Your task to perform on an android device: Set an alarm for 9am Image 0: 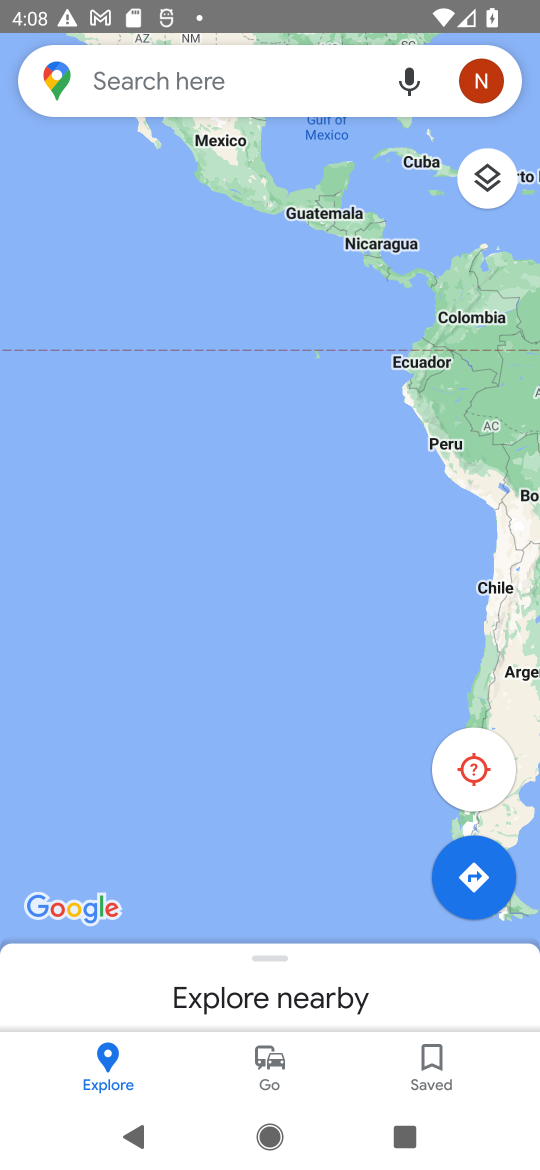
Step 0: press home button
Your task to perform on an android device: Set an alarm for 9am Image 1: 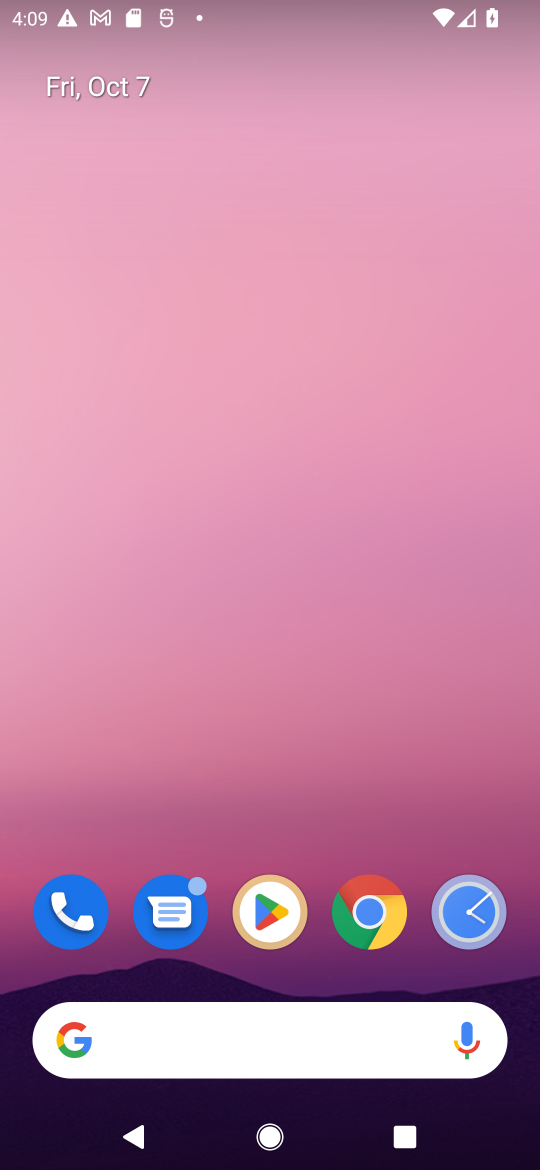
Step 1: drag from (221, 968) to (248, 382)
Your task to perform on an android device: Set an alarm for 9am Image 2: 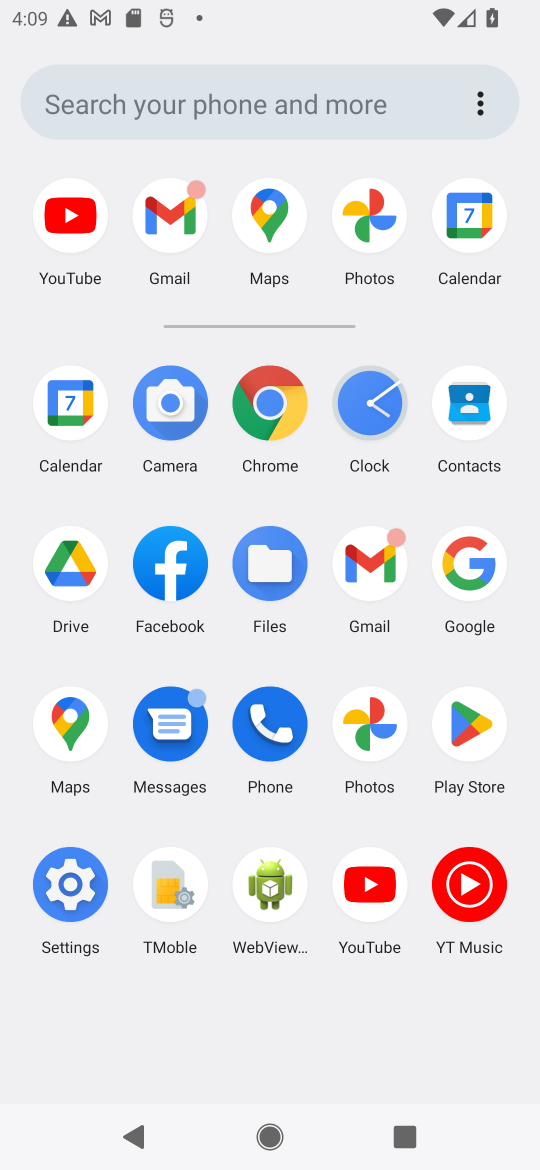
Step 2: click (374, 394)
Your task to perform on an android device: Set an alarm for 9am Image 3: 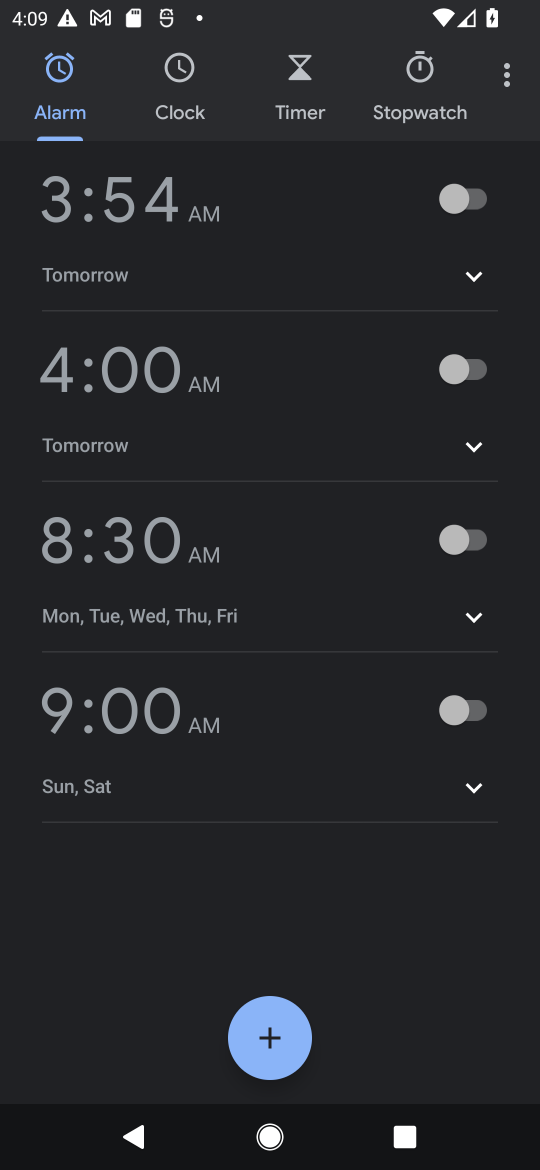
Step 3: click (474, 707)
Your task to perform on an android device: Set an alarm for 9am Image 4: 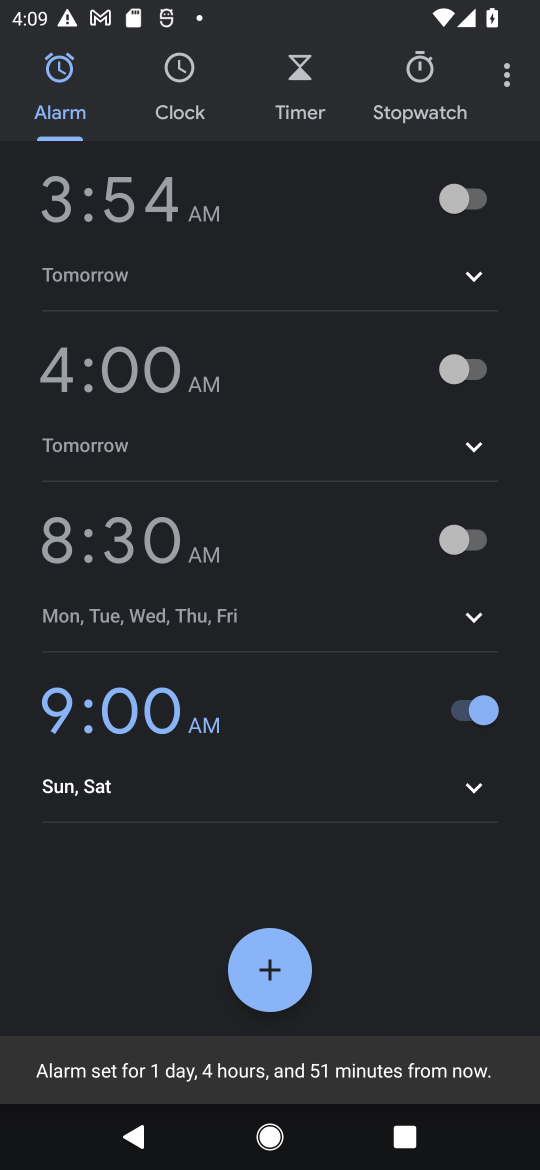
Step 4: click (465, 782)
Your task to perform on an android device: Set an alarm for 9am Image 5: 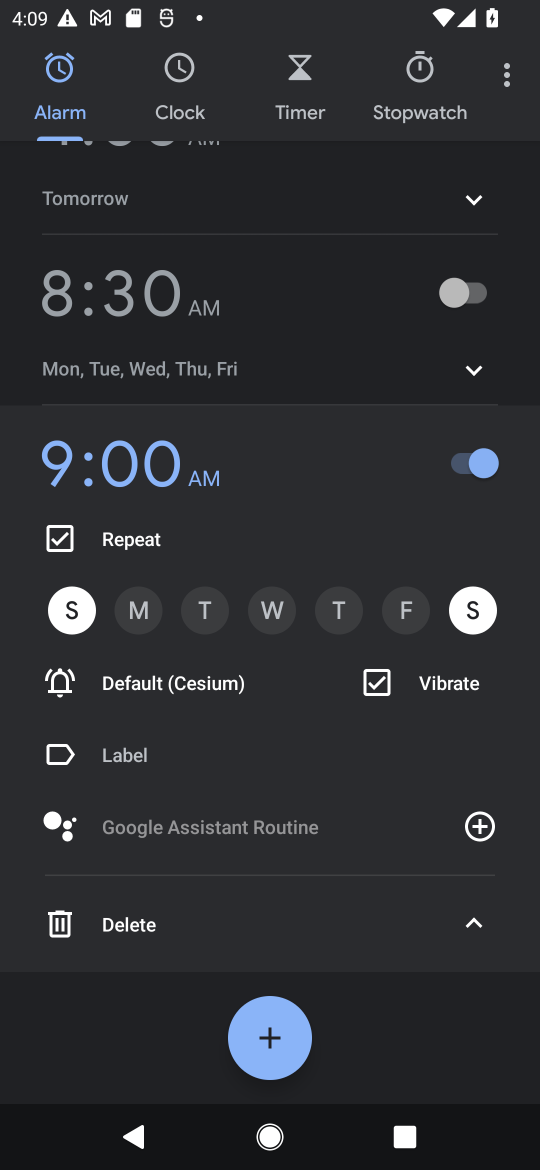
Step 5: click (126, 610)
Your task to perform on an android device: Set an alarm for 9am Image 6: 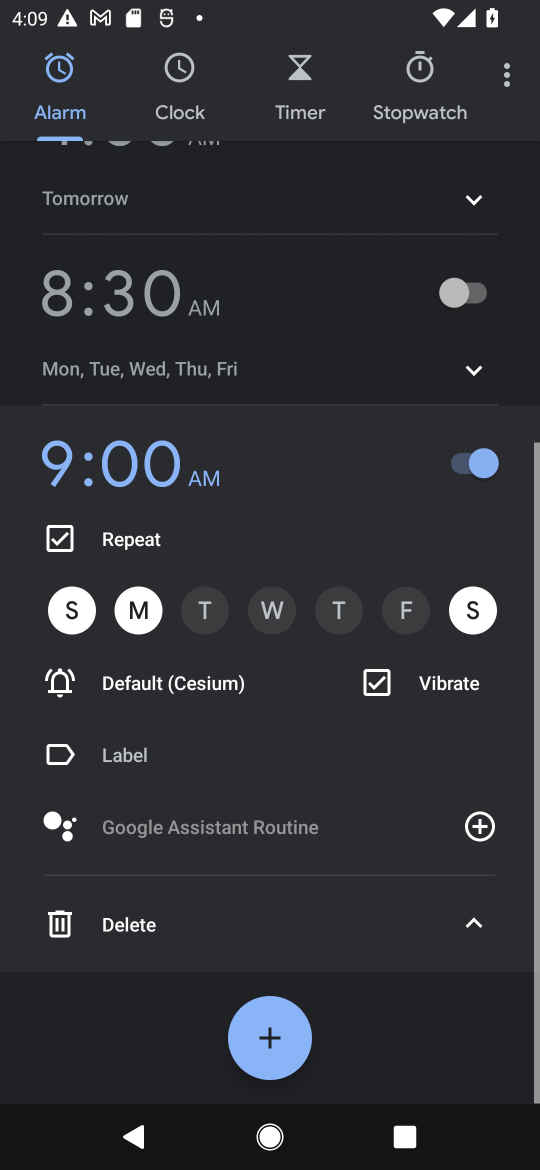
Step 6: click (215, 604)
Your task to perform on an android device: Set an alarm for 9am Image 7: 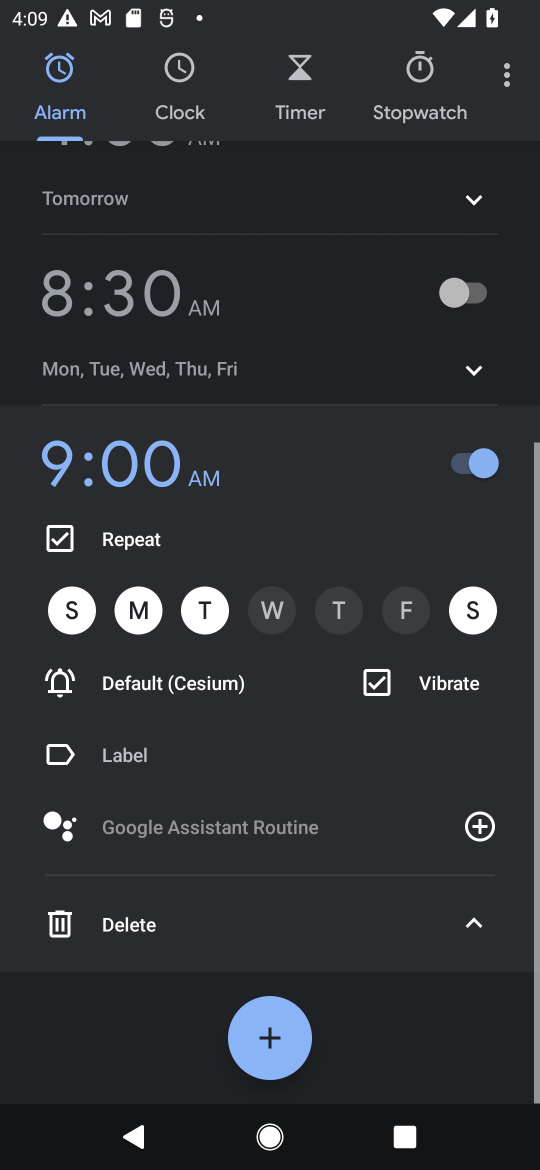
Step 7: click (258, 597)
Your task to perform on an android device: Set an alarm for 9am Image 8: 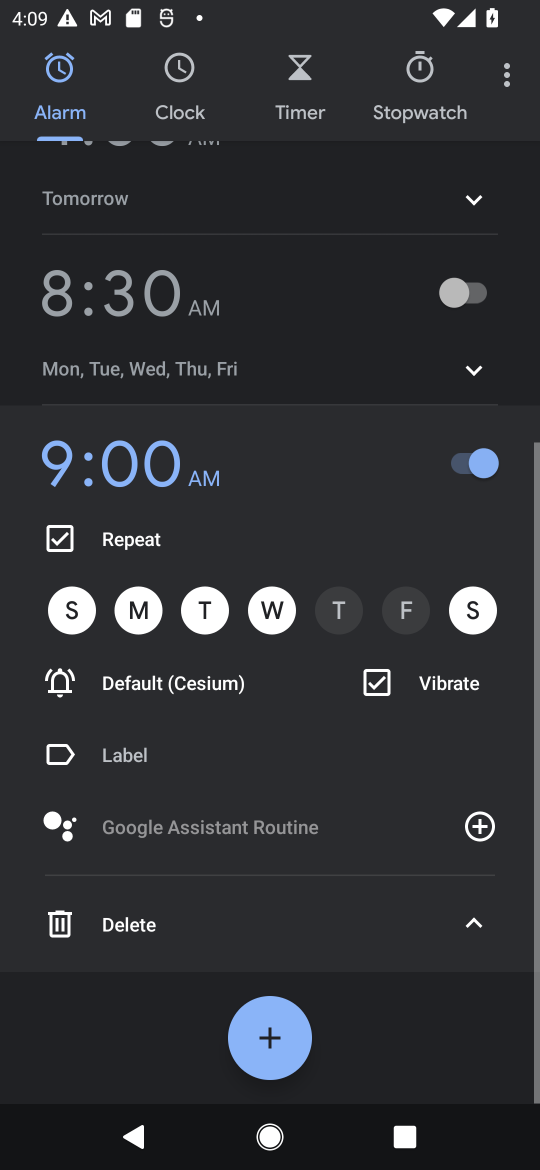
Step 8: click (352, 601)
Your task to perform on an android device: Set an alarm for 9am Image 9: 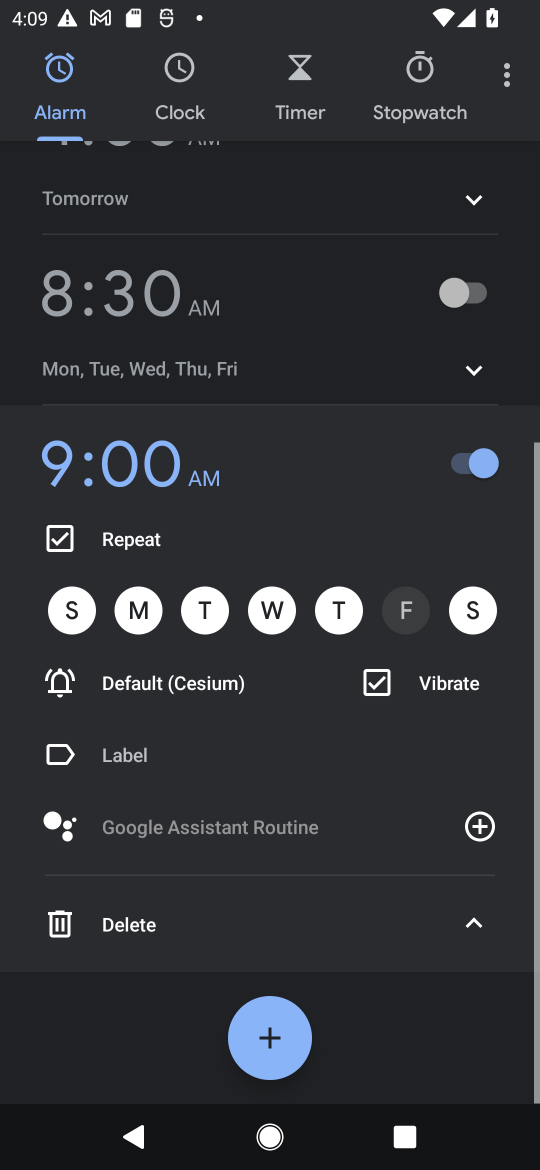
Step 9: click (396, 610)
Your task to perform on an android device: Set an alarm for 9am Image 10: 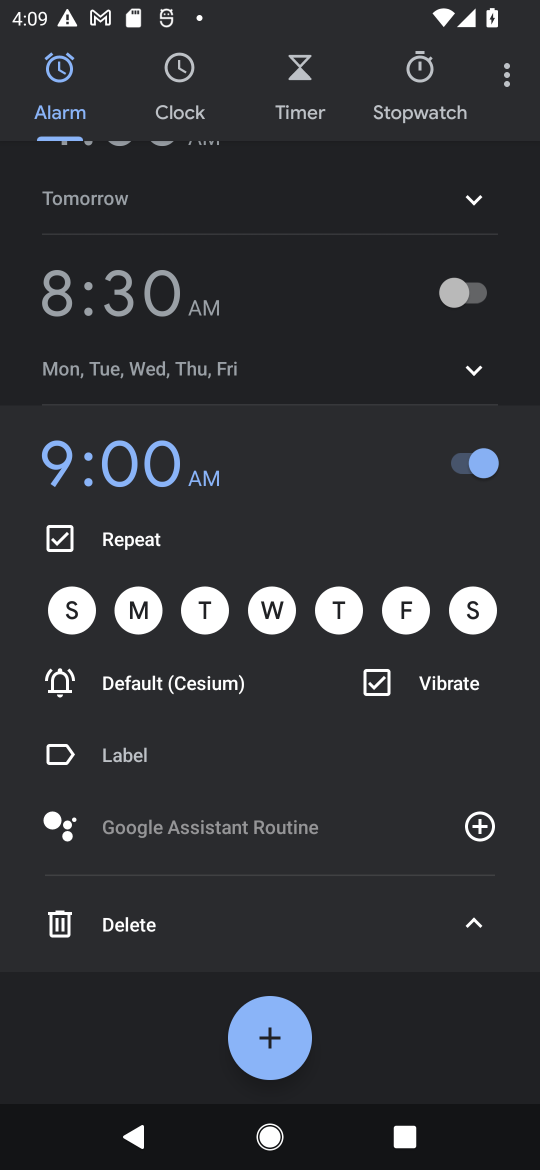
Step 10: click (477, 928)
Your task to perform on an android device: Set an alarm for 9am Image 11: 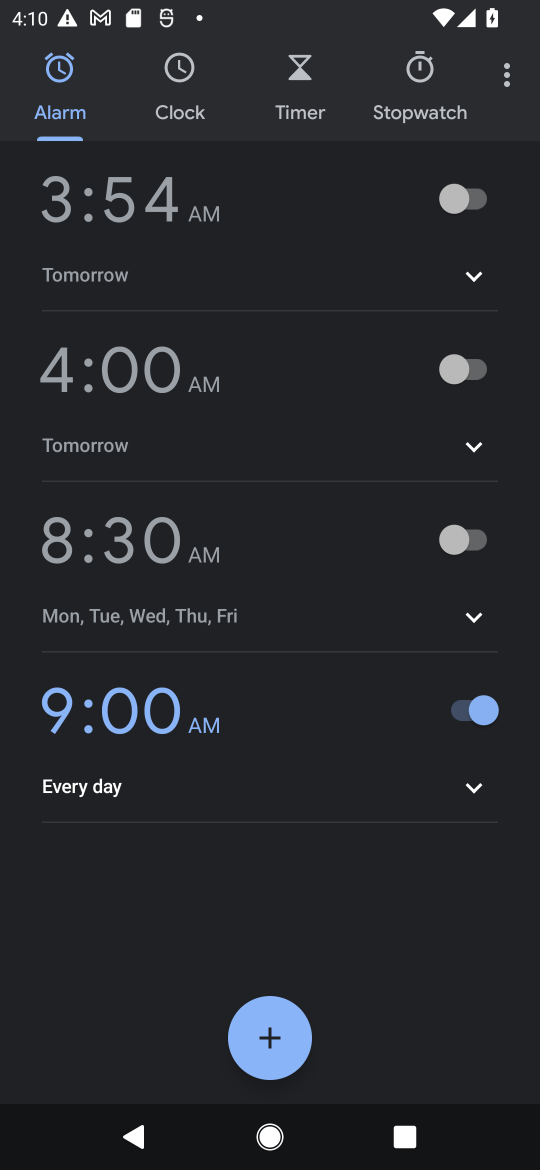
Step 11: task complete